Your task to perform on an android device: turn on translation in the chrome app Image 0: 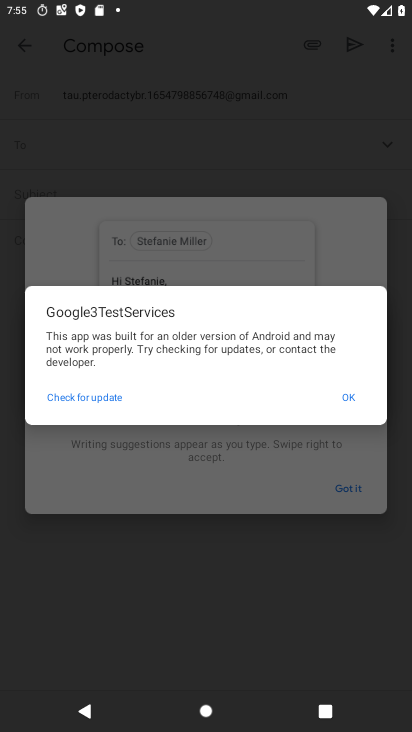
Step 0: press home button
Your task to perform on an android device: turn on translation in the chrome app Image 1: 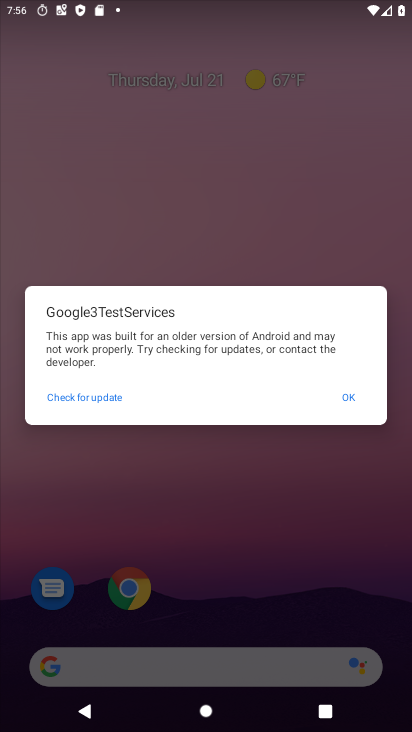
Step 1: click (347, 393)
Your task to perform on an android device: turn on translation in the chrome app Image 2: 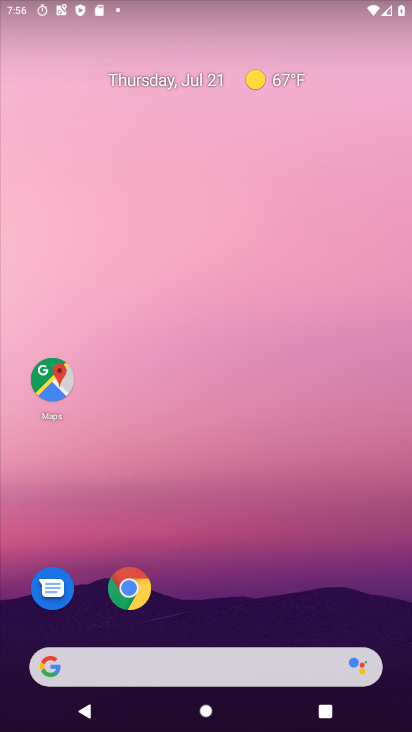
Step 2: click (140, 576)
Your task to perform on an android device: turn on translation in the chrome app Image 3: 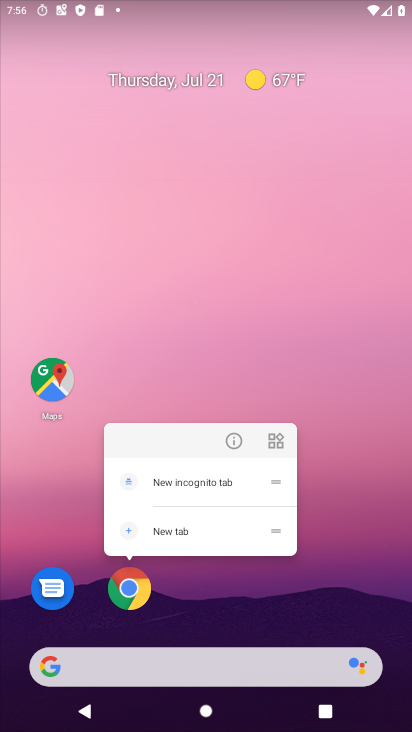
Step 3: click (141, 589)
Your task to perform on an android device: turn on translation in the chrome app Image 4: 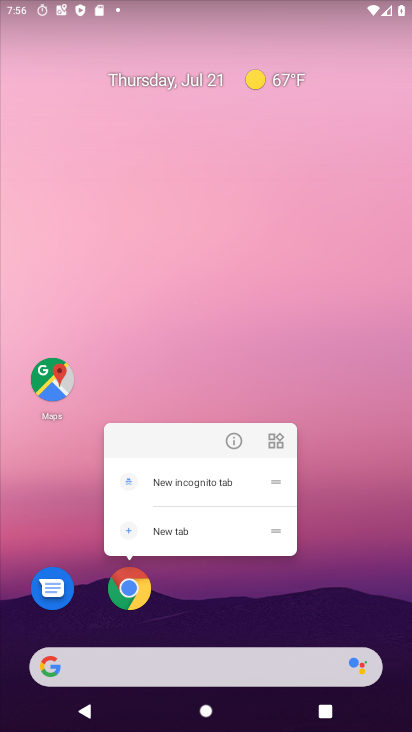
Step 4: click (131, 588)
Your task to perform on an android device: turn on translation in the chrome app Image 5: 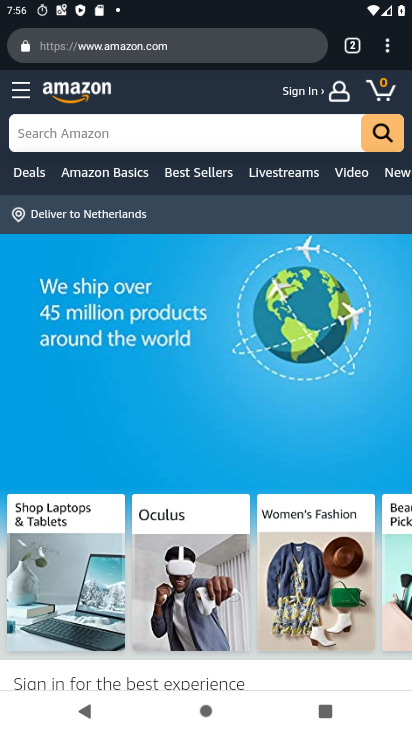
Step 5: click (387, 55)
Your task to perform on an android device: turn on translation in the chrome app Image 6: 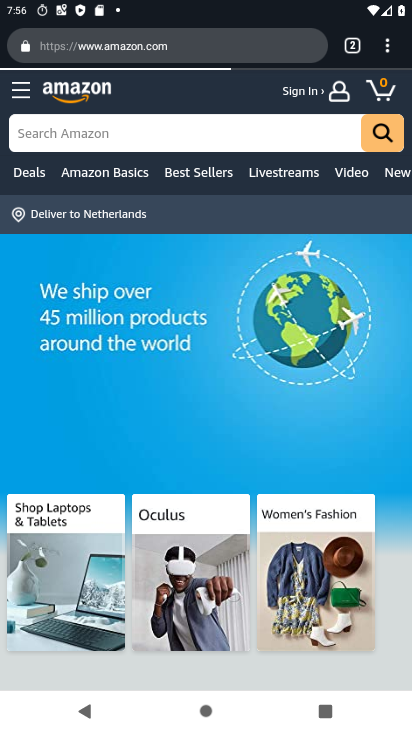
Step 6: click (387, 55)
Your task to perform on an android device: turn on translation in the chrome app Image 7: 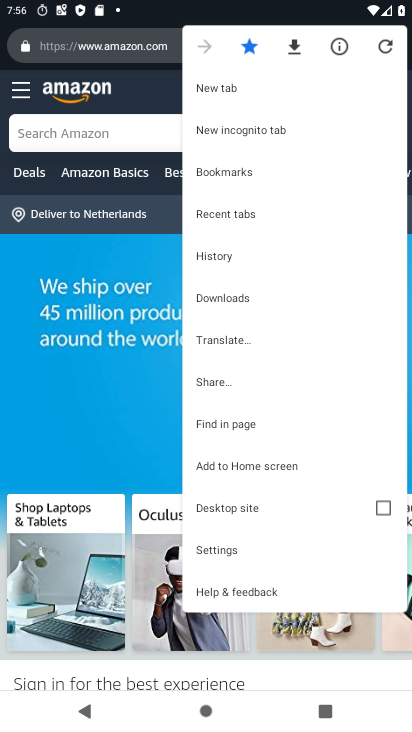
Step 7: click (224, 548)
Your task to perform on an android device: turn on translation in the chrome app Image 8: 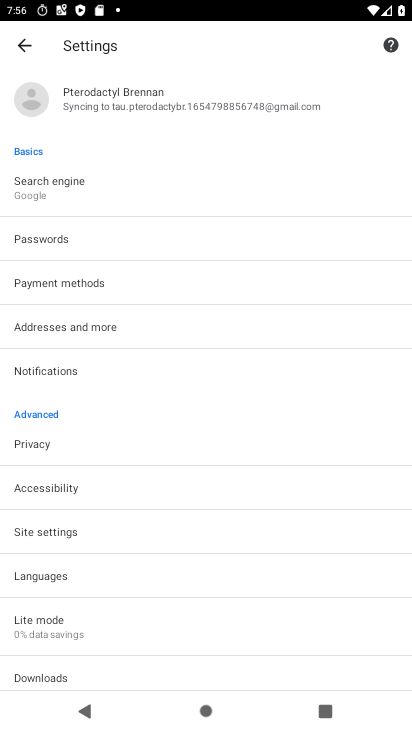
Step 8: click (78, 576)
Your task to perform on an android device: turn on translation in the chrome app Image 9: 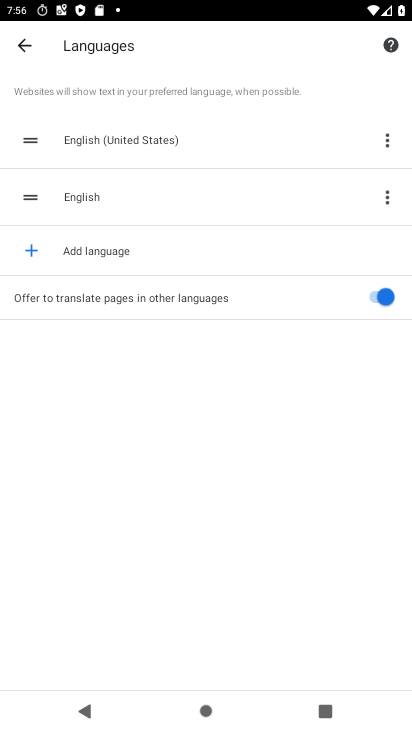
Step 9: task complete